Your task to perform on an android device: Search for the new nike air max shoes on Nike. Image 0: 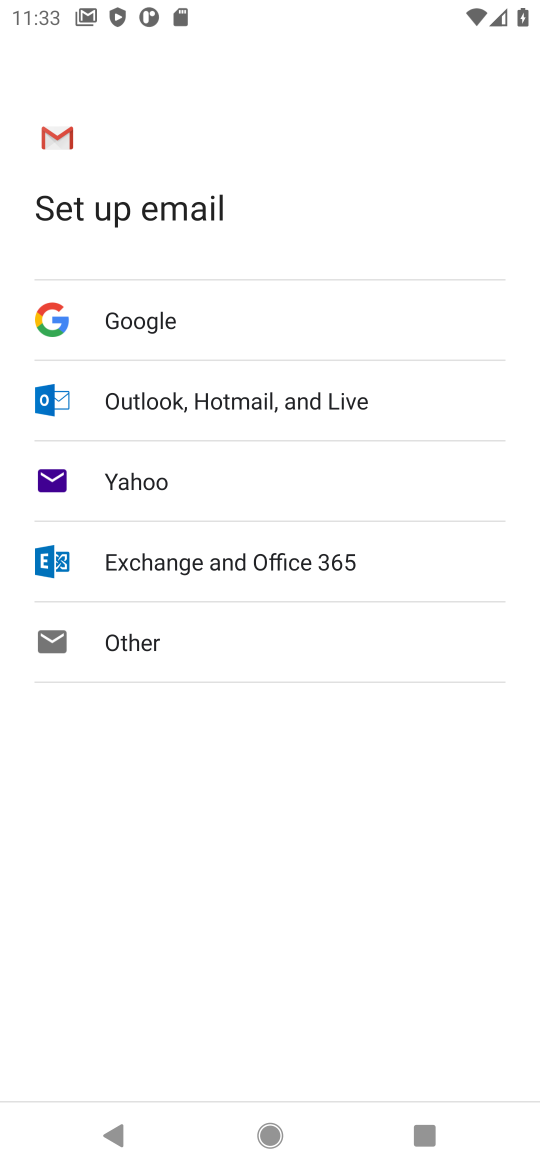
Step 0: press home button
Your task to perform on an android device: Search for the new nike air max shoes on Nike. Image 1: 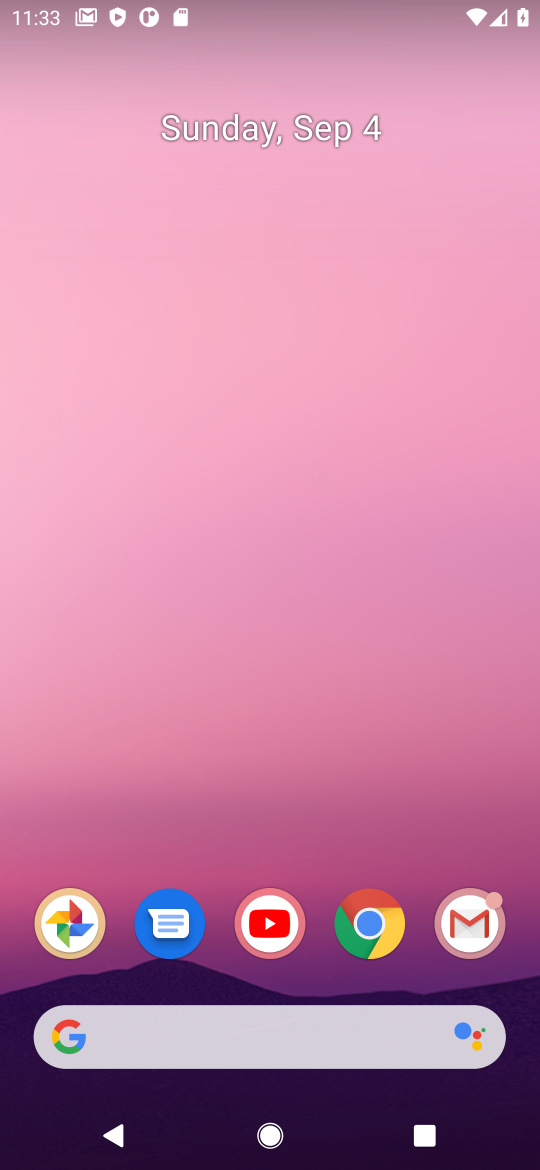
Step 1: click (377, 911)
Your task to perform on an android device: Search for the new nike air max shoes on Nike. Image 2: 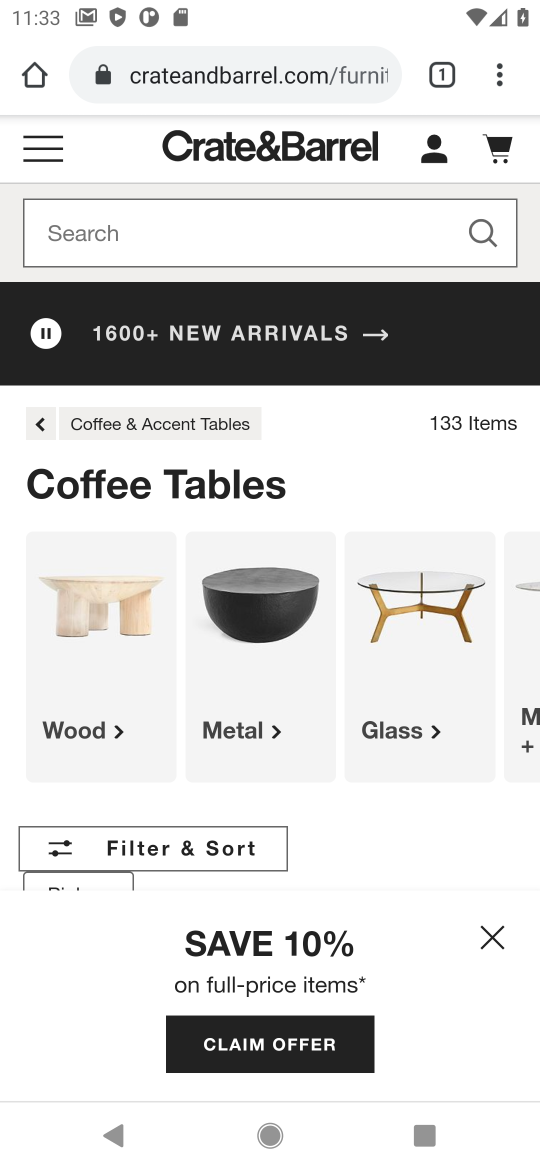
Step 2: click (200, 57)
Your task to perform on an android device: Search for the new nike air max shoes on Nike. Image 3: 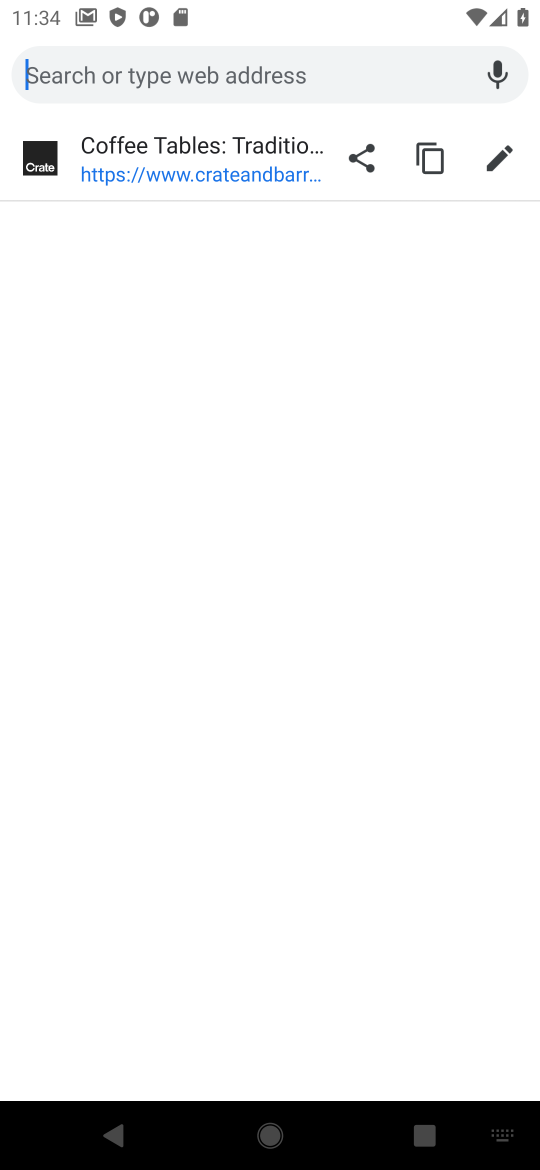
Step 3: type " the new nike air max shoes on Nike."
Your task to perform on an android device: Search for the new nike air max shoes on Nike. Image 4: 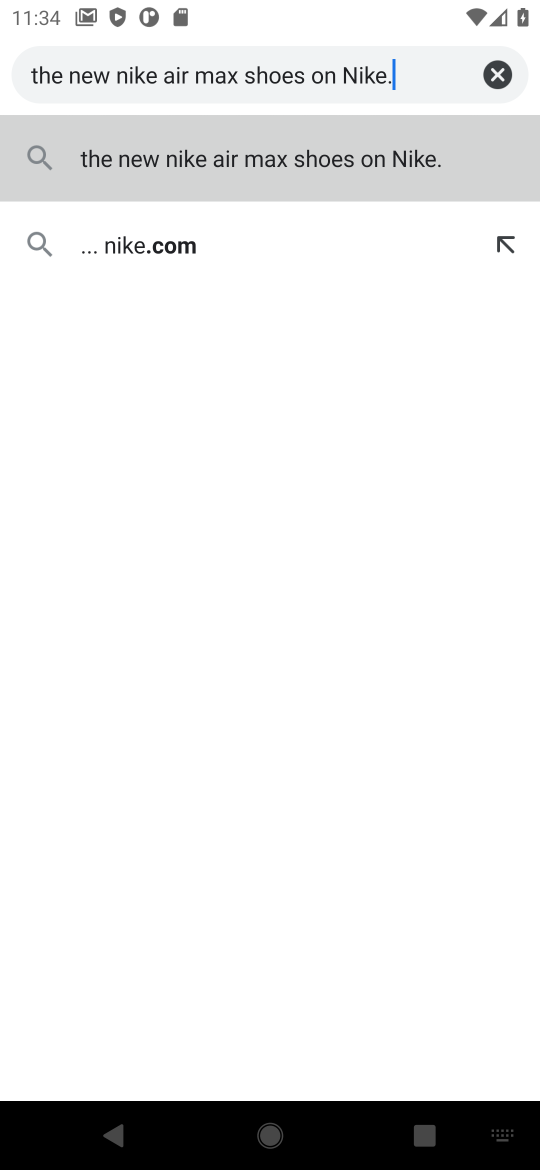
Step 4: click (360, 167)
Your task to perform on an android device: Search for the new nike air max shoes on Nike. Image 5: 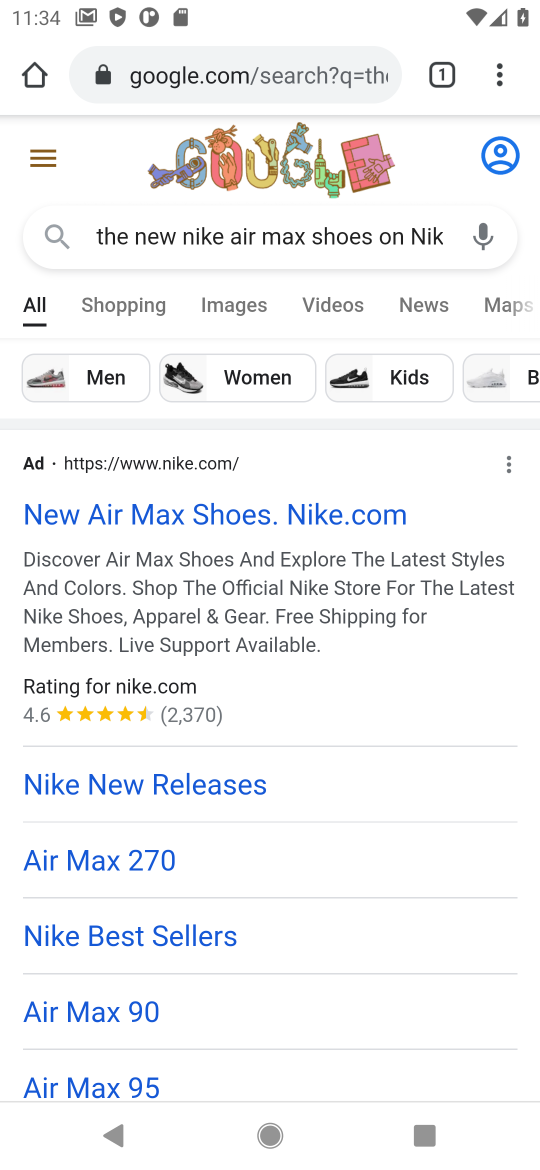
Step 5: task complete